Your task to perform on an android device: Open Chrome and go to settings Image 0: 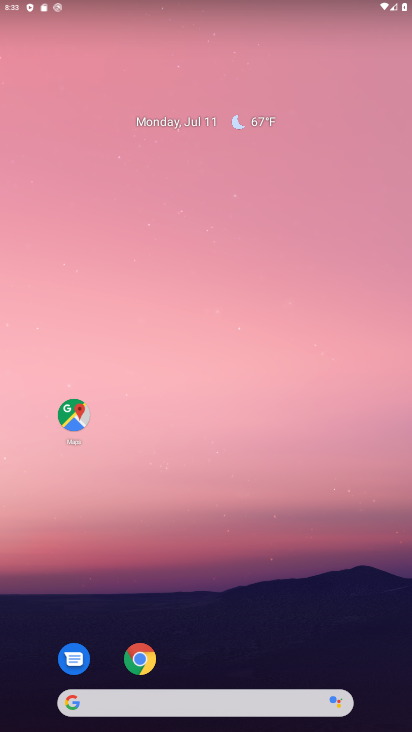
Step 0: click (132, 658)
Your task to perform on an android device: Open Chrome and go to settings Image 1: 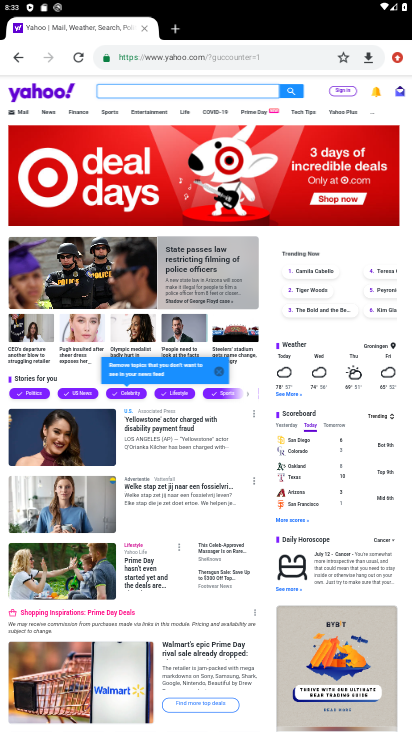
Step 1: click (396, 58)
Your task to perform on an android device: Open Chrome and go to settings Image 2: 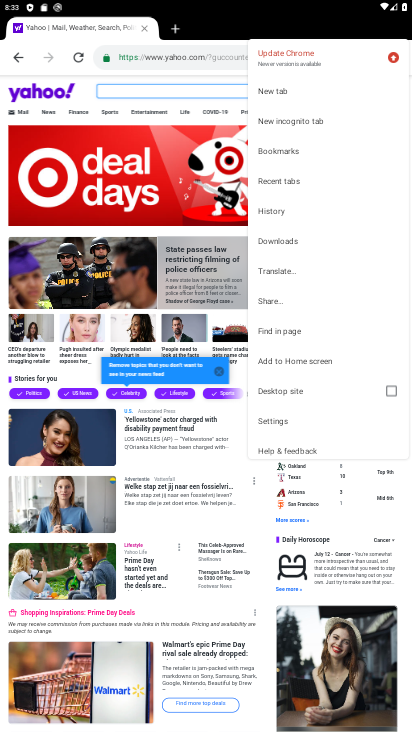
Step 2: click (304, 423)
Your task to perform on an android device: Open Chrome and go to settings Image 3: 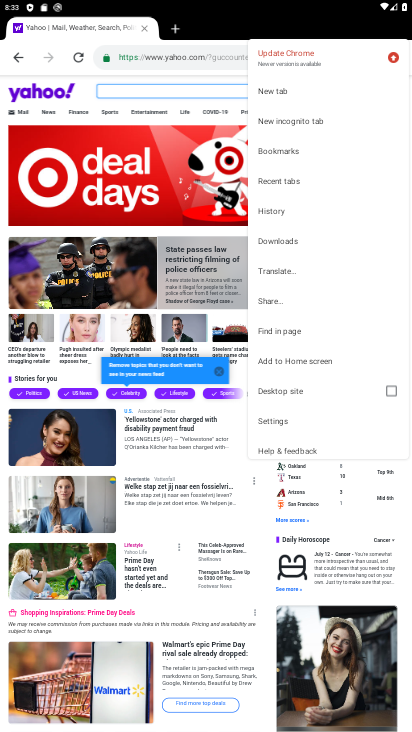
Step 3: click (290, 424)
Your task to perform on an android device: Open Chrome and go to settings Image 4: 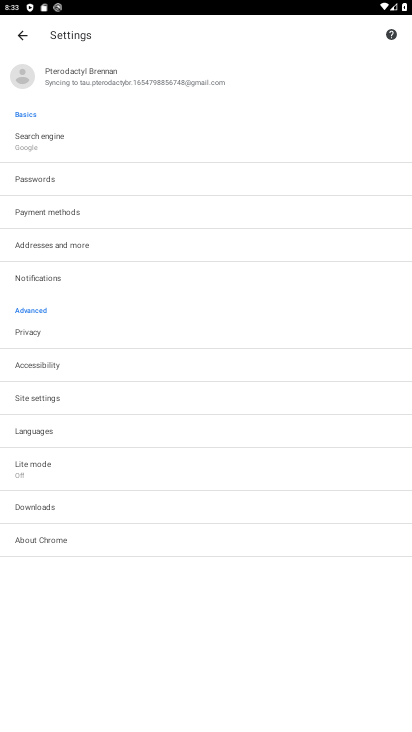
Step 4: task complete